Your task to perform on an android device: choose inbox layout in the gmail app Image 0: 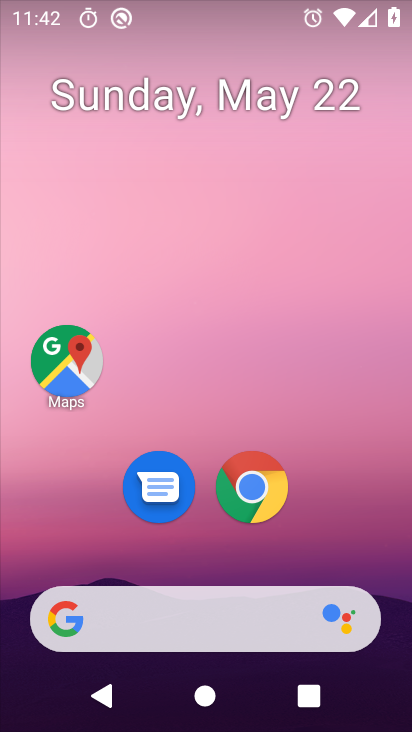
Step 0: drag from (363, 524) to (357, 135)
Your task to perform on an android device: choose inbox layout in the gmail app Image 1: 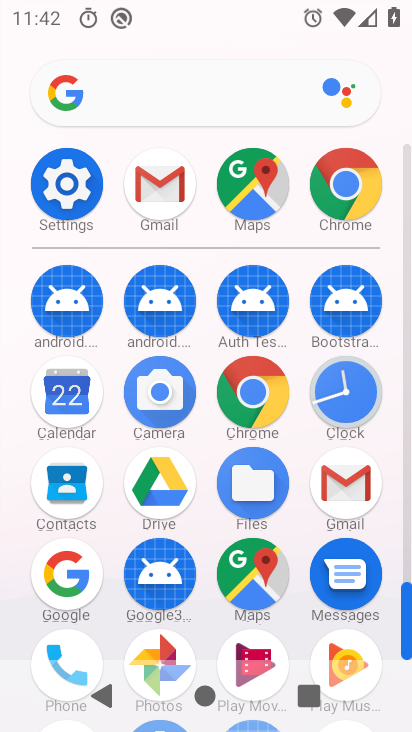
Step 1: click (341, 482)
Your task to perform on an android device: choose inbox layout in the gmail app Image 2: 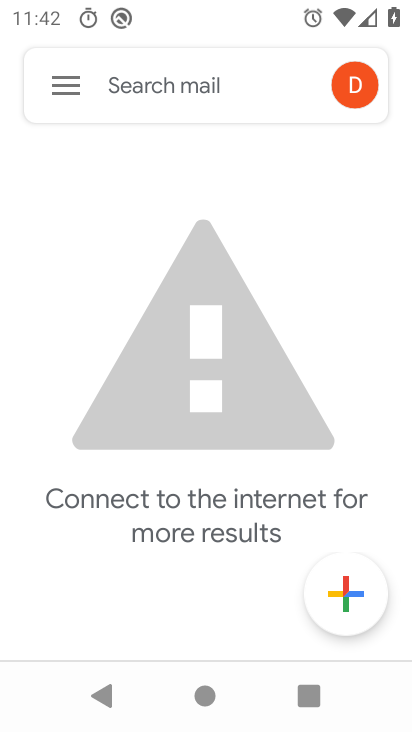
Step 2: click (64, 92)
Your task to perform on an android device: choose inbox layout in the gmail app Image 3: 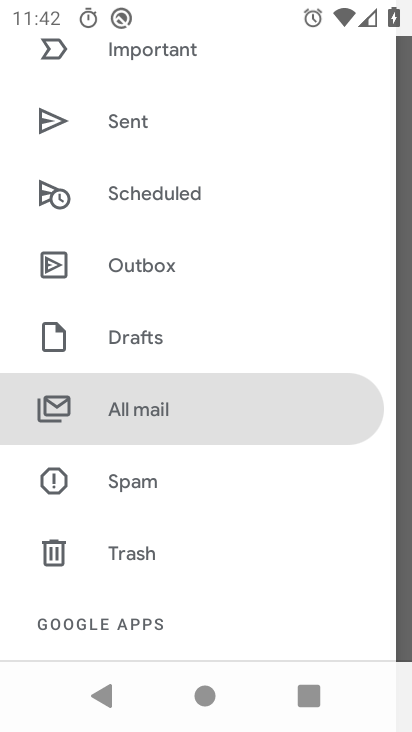
Step 3: drag from (214, 595) to (302, 240)
Your task to perform on an android device: choose inbox layout in the gmail app Image 4: 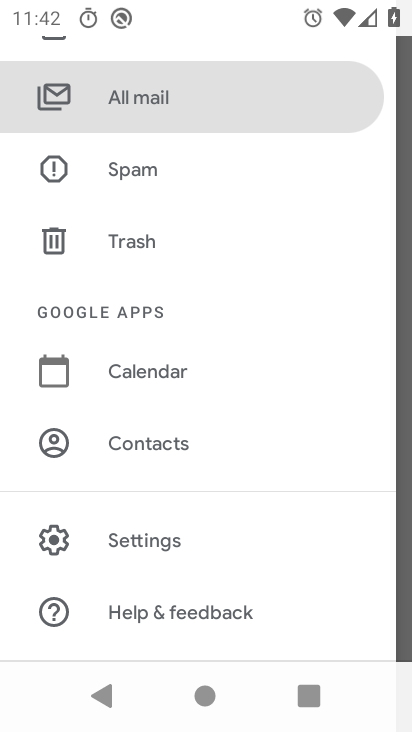
Step 4: click (191, 533)
Your task to perform on an android device: choose inbox layout in the gmail app Image 5: 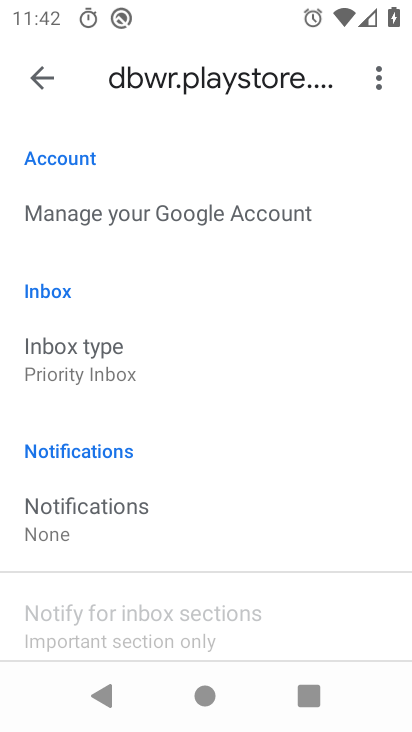
Step 5: click (110, 371)
Your task to perform on an android device: choose inbox layout in the gmail app Image 6: 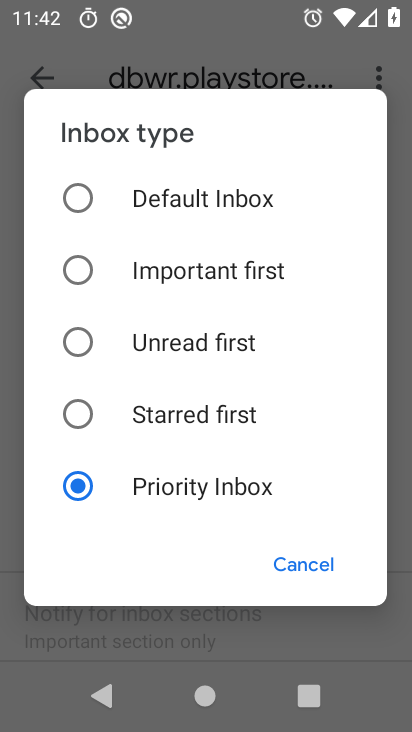
Step 6: click (74, 345)
Your task to perform on an android device: choose inbox layout in the gmail app Image 7: 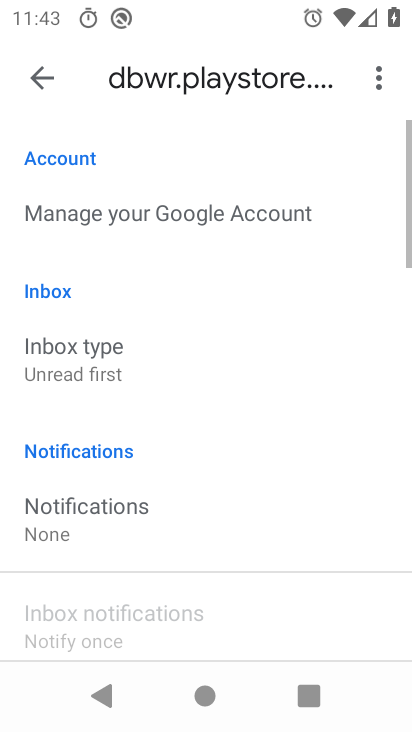
Step 7: task complete